Your task to perform on an android device: Go to Google maps Image 0: 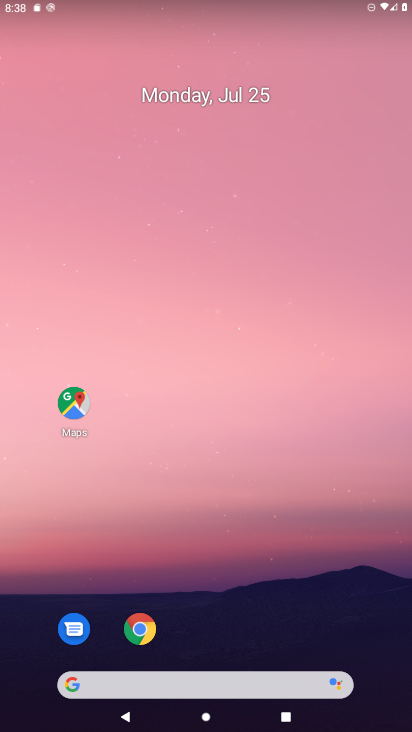
Step 0: click (81, 402)
Your task to perform on an android device: Go to Google maps Image 1: 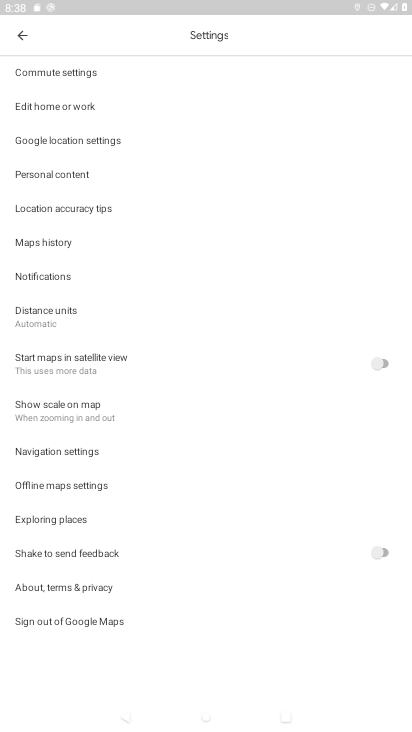
Step 1: task complete